Your task to perform on an android device: see sites visited before in the chrome app Image 0: 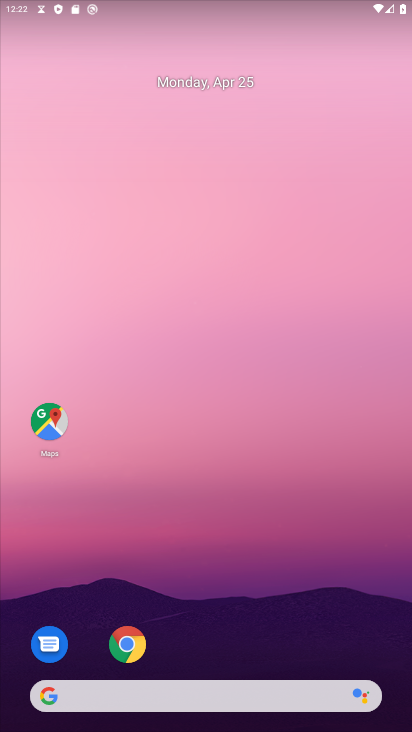
Step 0: click (127, 644)
Your task to perform on an android device: see sites visited before in the chrome app Image 1: 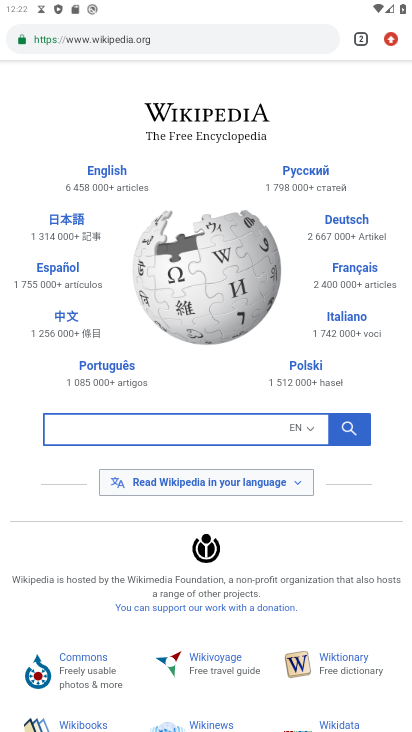
Step 1: task complete